Your task to perform on an android device: change notifications settings Image 0: 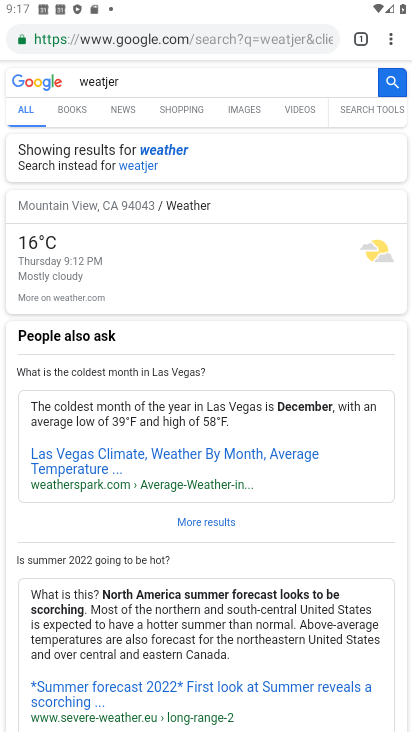
Step 0: press home button
Your task to perform on an android device: change notifications settings Image 1: 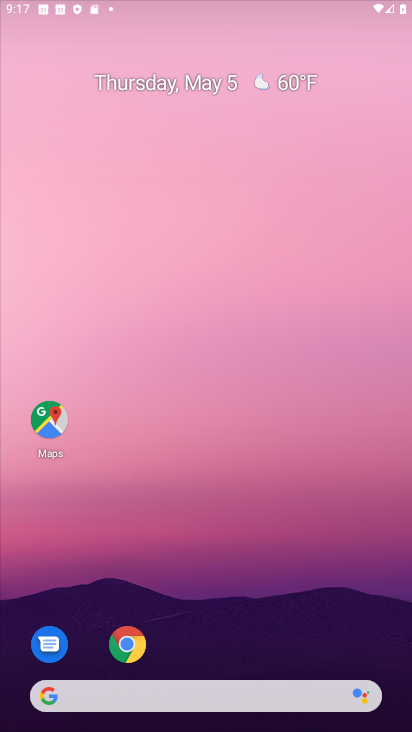
Step 1: drag from (208, 580) to (218, 224)
Your task to perform on an android device: change notifications settings Image 2: 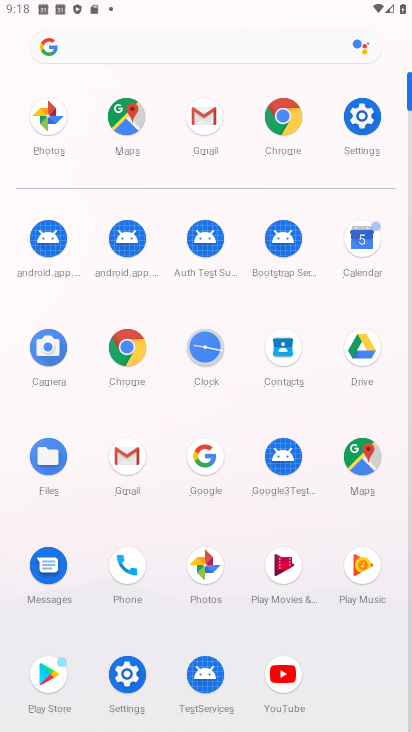
Step 2: click (361, 115)
Your task to perform on an android device: change notifications settings Image 3: 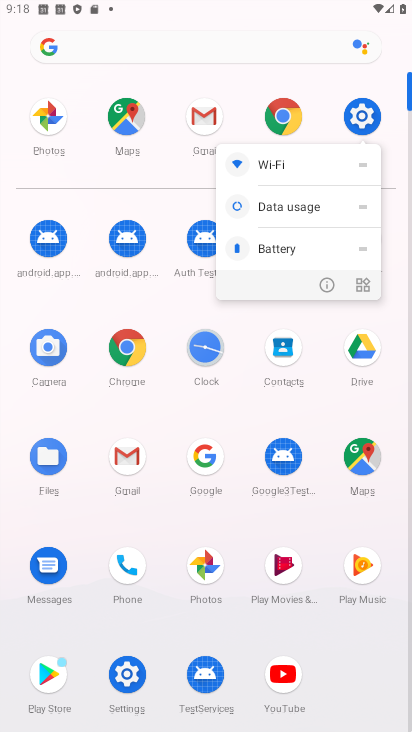
Step 3: click (318, 285)
Your task to perform on an android device: change notifications settings Image 4: 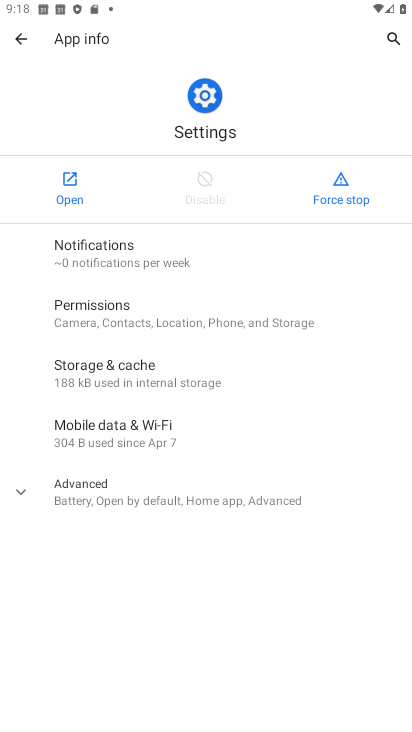
Step 4: click (64, 185)
Your task to perform on an android device: change notifications settings Image 5: 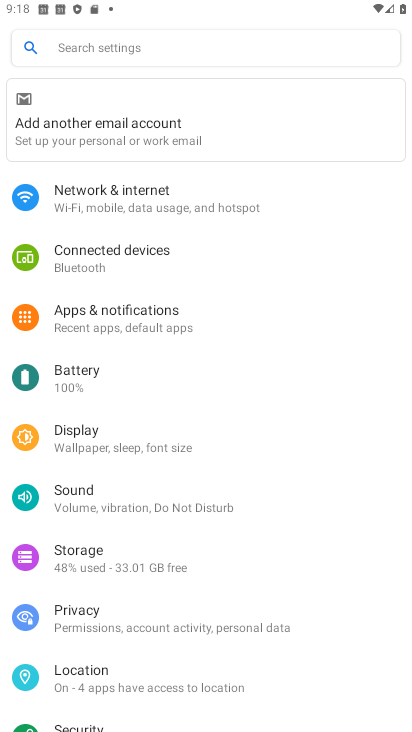
Step 5: click (159, 325)
Your task to perform on an android device: change notifications settings Image 6: 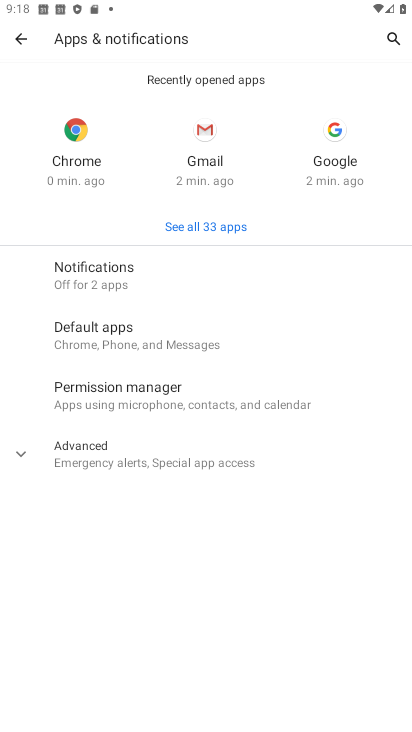
Step 6: click (159, 270)
Your task to perform on an android device: change notifications settings Image 7: 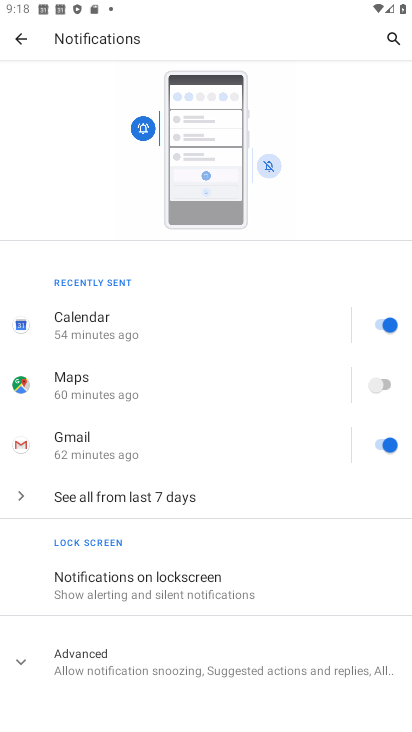
Step 7: click (376, 390)
Your task to perform on an android device: change notifications settings Image 8: 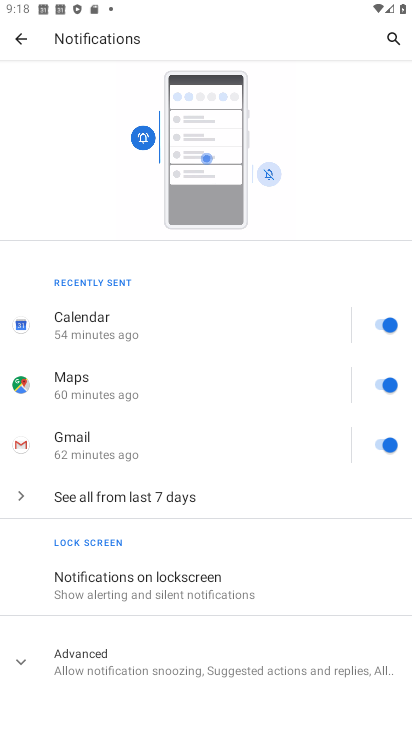
Step 8: task complete